Your task to perform on an android device: delete a single message in the gmail app Image 0: 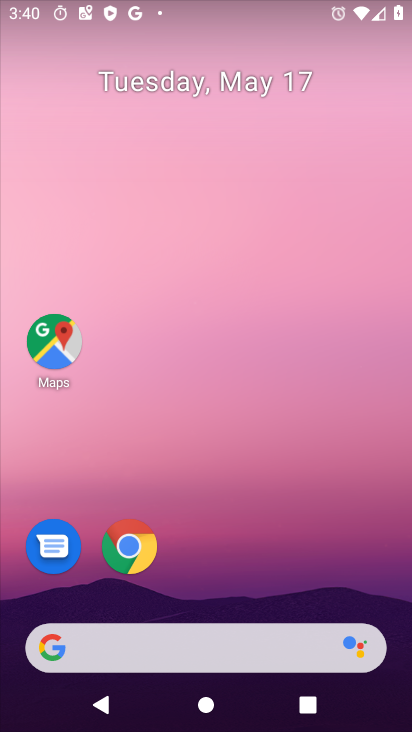
Step 0: drag from (385, 687) to (367, 335)
Your task to perform on an android device: delete a single message in the gmail app Image 1: 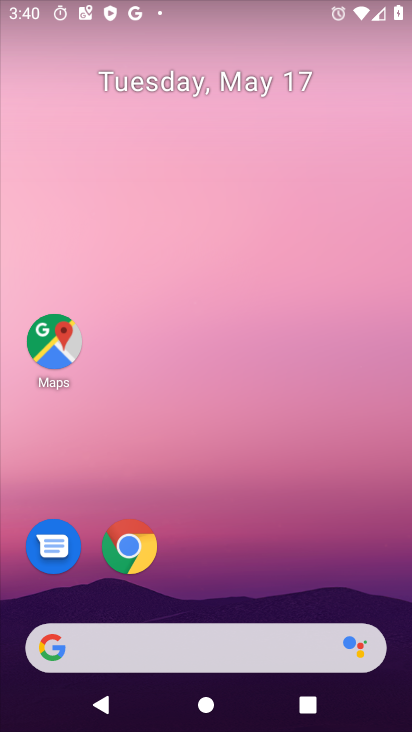
Step 1: drag from (393, 617) to (384, 428)
Your task to perform on an android device: delete a single message in the gmail app Image 2: 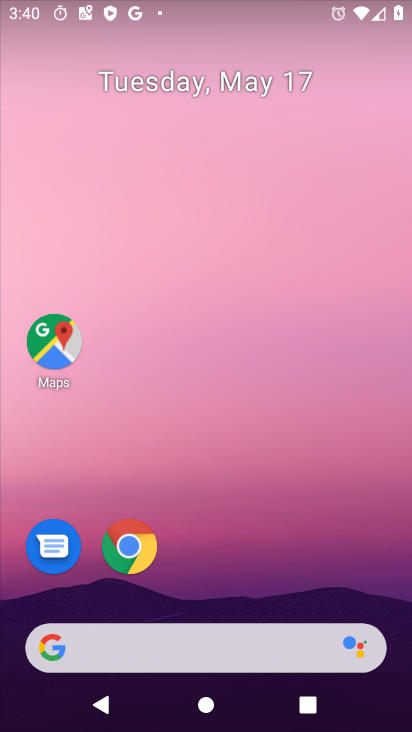
Step 2: click (366, 453)
Your task to perform on an android device: delete a single message in the gmail app Image 3: 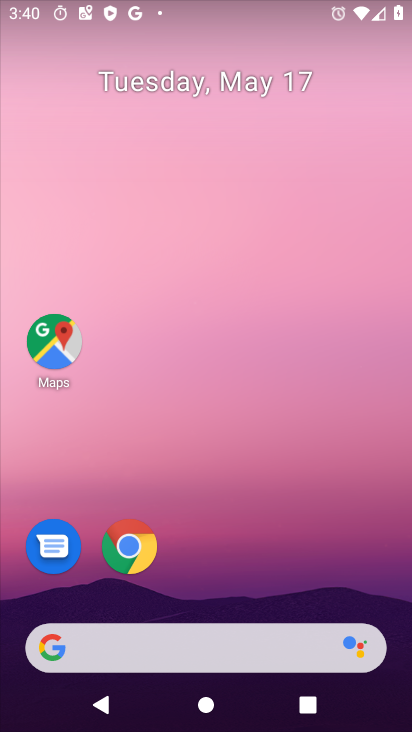
Step 3: click (374, 306)
Your task to perform on an android device: delete a single message in the gmail app Image 4: 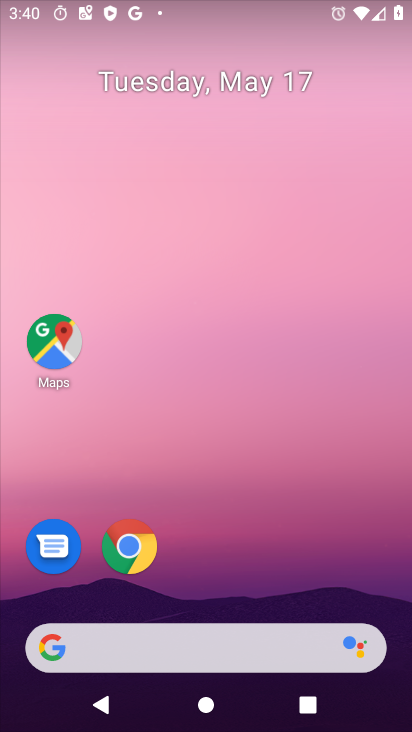
Step 4: drag from (406, 567) to (408, 176)
Your task to perform on an android device: delete a single message in the gmail app Image 5: 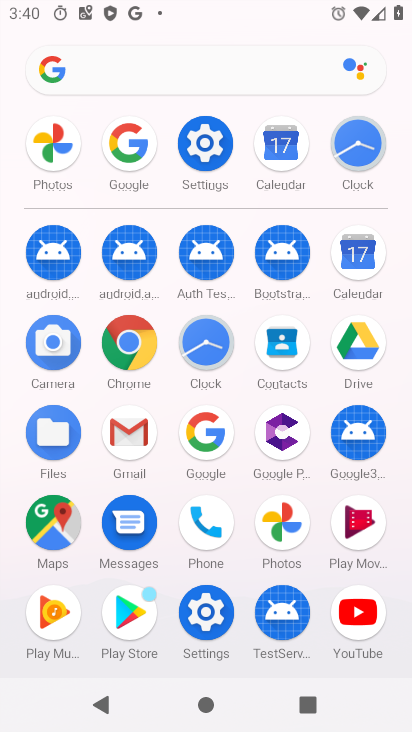
Step 5: click (145, 430)
Your task to perform on an android device: delete a single message in the gmail app Image 6: 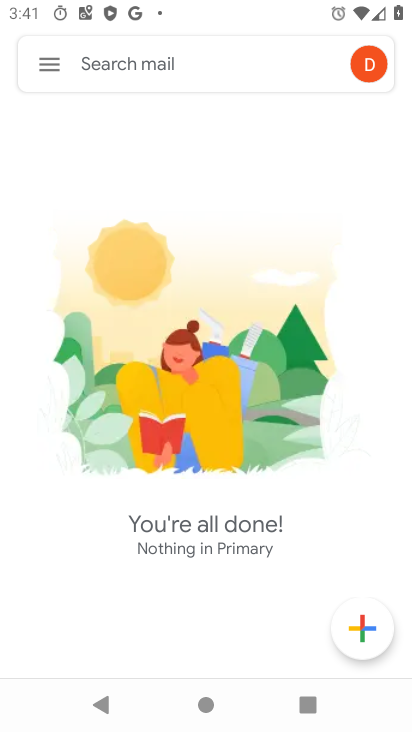
Step 6: click (52, 65)
Your task to perform on an android device: delete a single message in the gmail app Image 7: 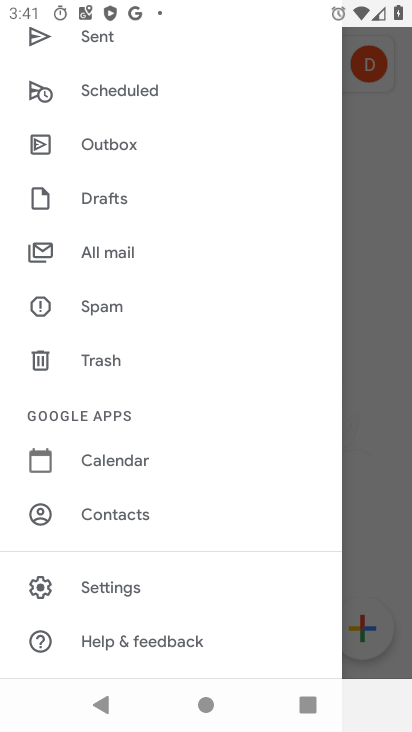
Step 7: drag from (253, 127) to (248, 424)
Your task to perform on an android device: delete a single message in the gmail app Image 8: 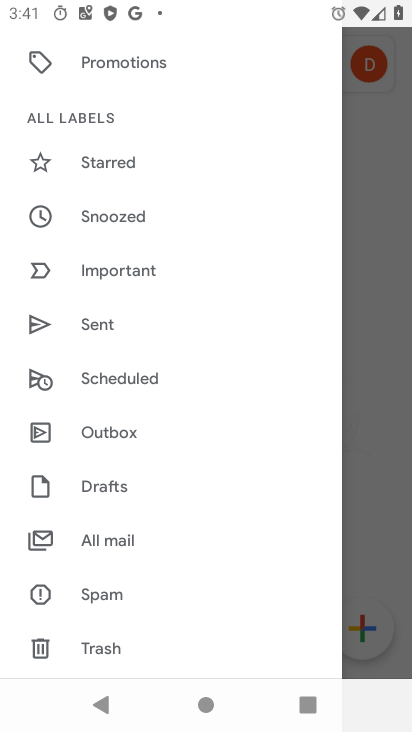
Step 8: drag from (206, 103) to (205, 448)
Your task to perform on an android device: delete a single message in the gmail app Image 9: 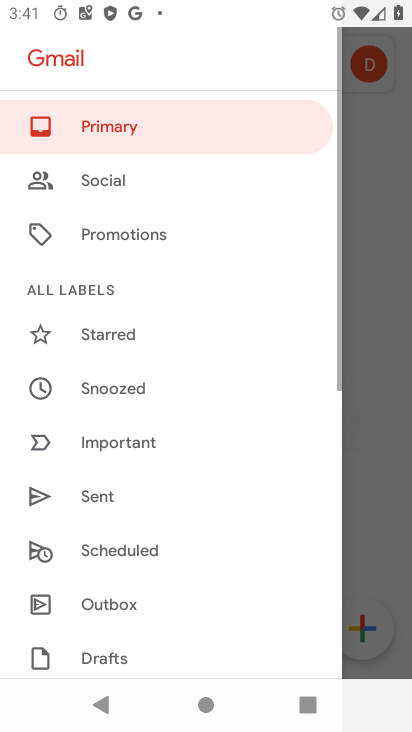
Step 9: click (123, 128)
Your task to perform on an android device: delete a single message in the gmail app Image 10: 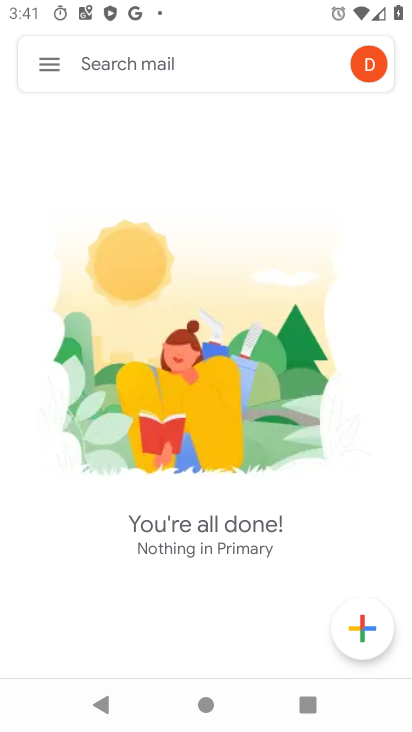
Step 10: task complete